Your task to perform on an android device: Open settings on Google Maps Image 0: 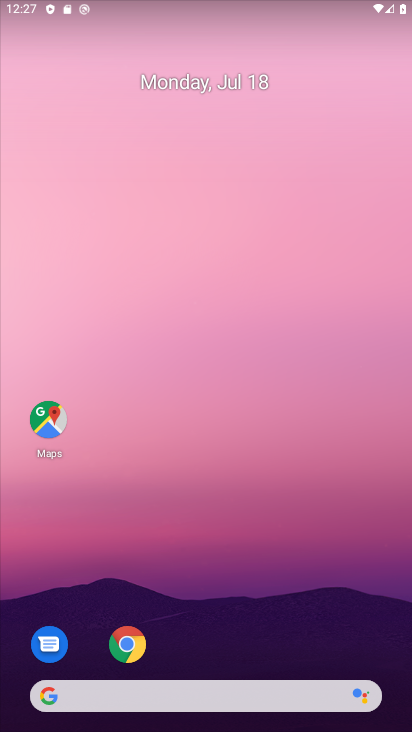
Step 0: press home button
Your task to perform on an android device: Open settings on Google Maps Image 1: 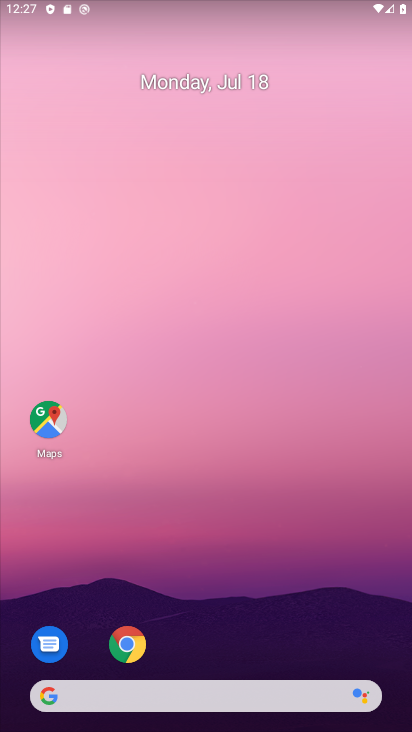
Step 1: click (237, 29)
Your task to perform on an android device: Open settings on Google Maps Image 2: 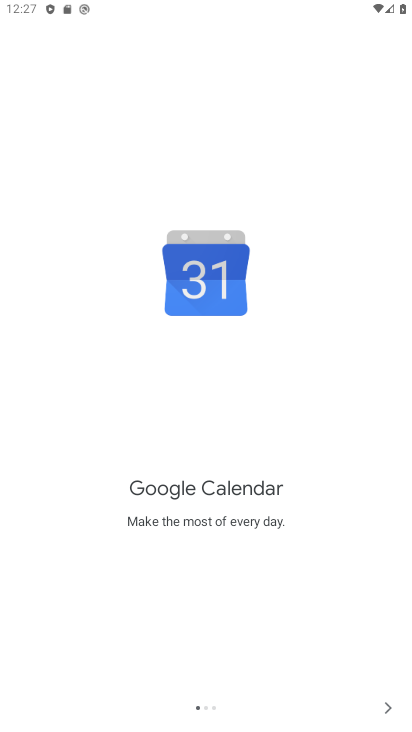
Step 2: press home button
Your task to perform on an android device: Open settings on Google Maps Image 3: 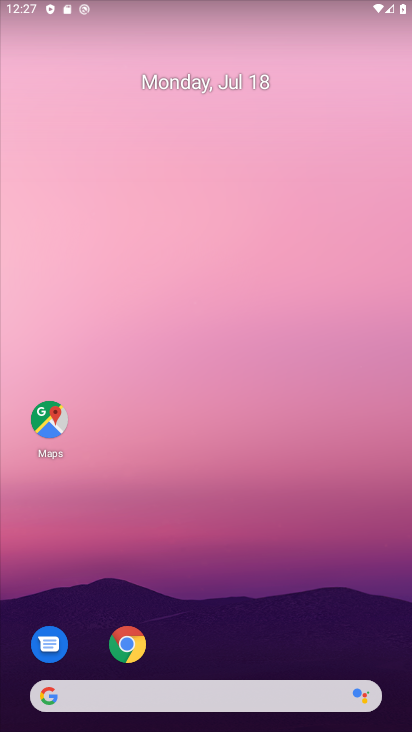
Step 3: drag from (204, 622) to (152, 55)
Your task to perform on an android device: Open settings on Google Maps Image 4: 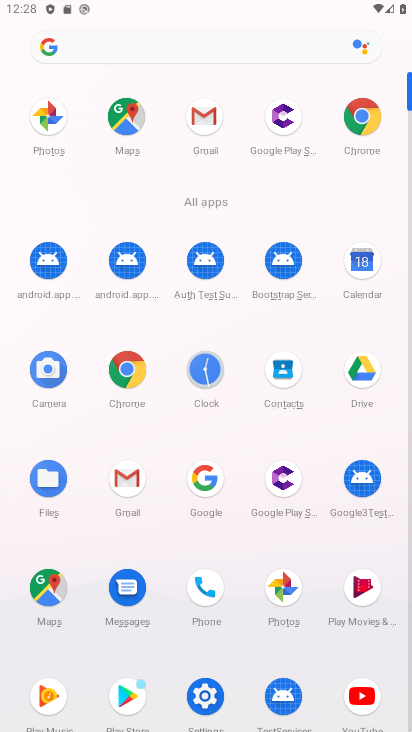
Step 4: click (124, 109)
Your task to perform on an android device: Open settings on Google Maps Image 5: 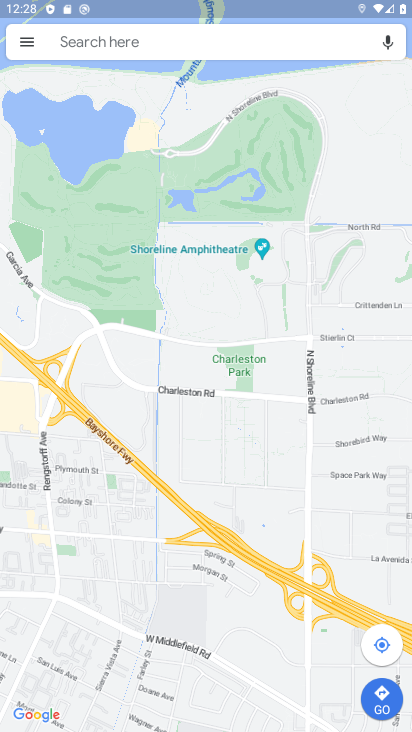
Step 5: click (24, 42)
Your task to perform on an android device: Open settings on Google Maps Image 6: 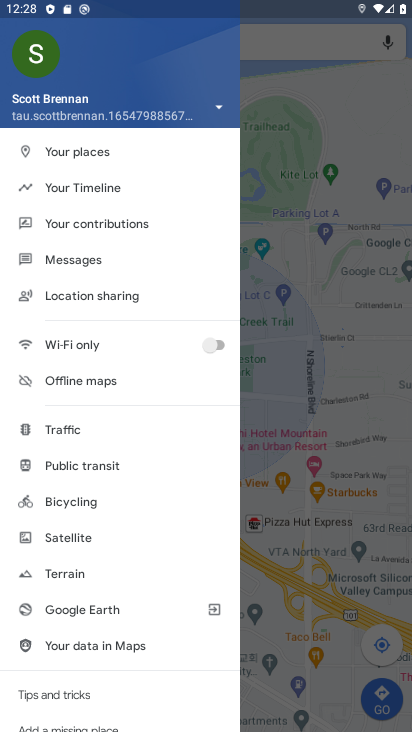
Step 6: click (69, 190)
Your task to perform on an android device: Open settings on Google Maps Image 7: 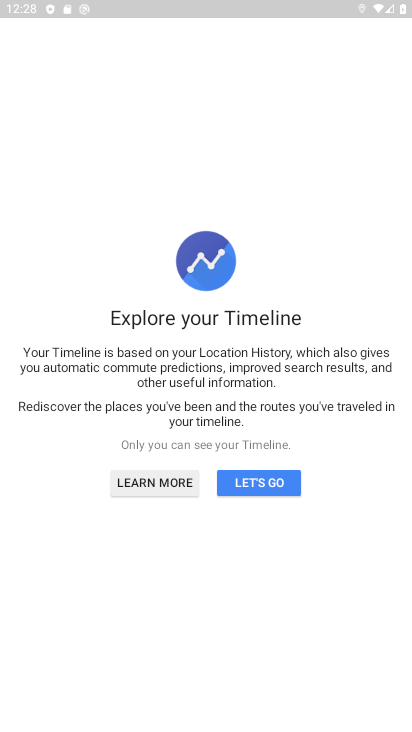
Step 7: press back button
Your task to perform on an android device: Open settings on Google Maps Image 8: 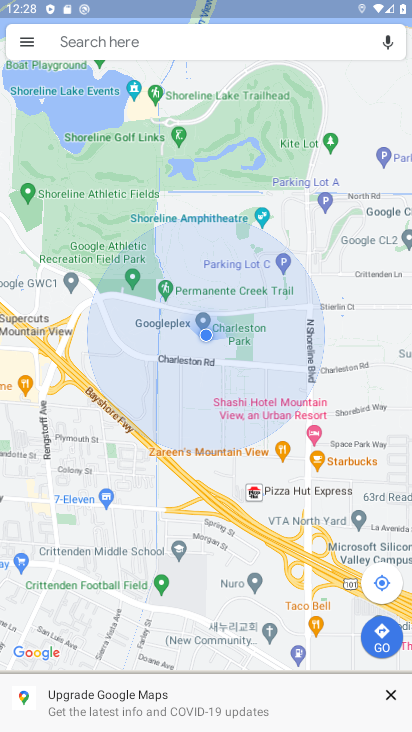
Step 8: click (29, 33)
Your task to perform on an android device: Open settings on Google Maps Image 9: 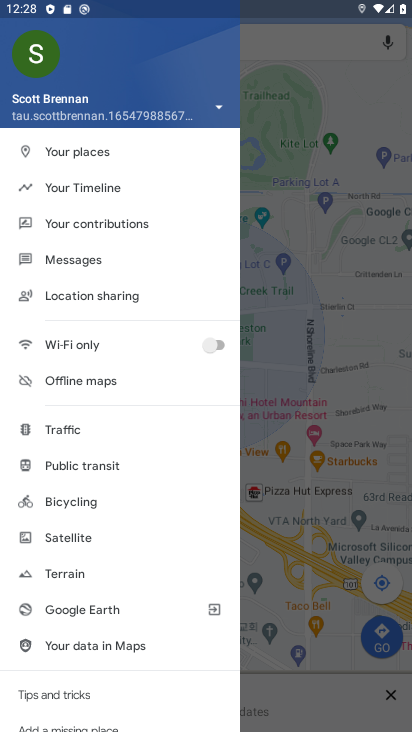
Step 9: drag from (123, 463) to (123, 34)
Your task to perform on an android device: Open settings on Google Maps Image 10: 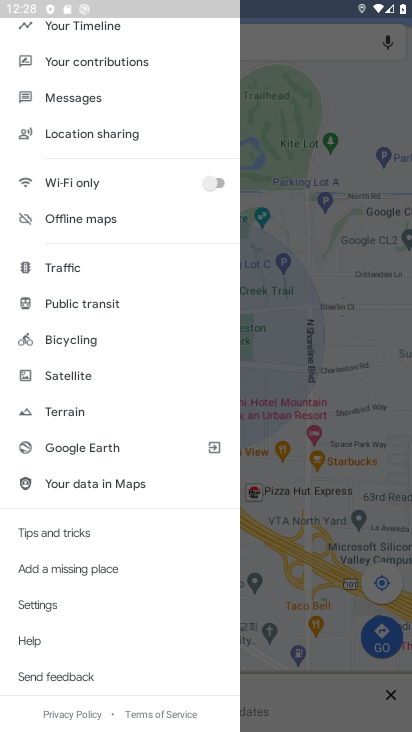
Step 10: click (51, 607)
Your task to perform on an android device: Open settings on Google Maps Image 11: 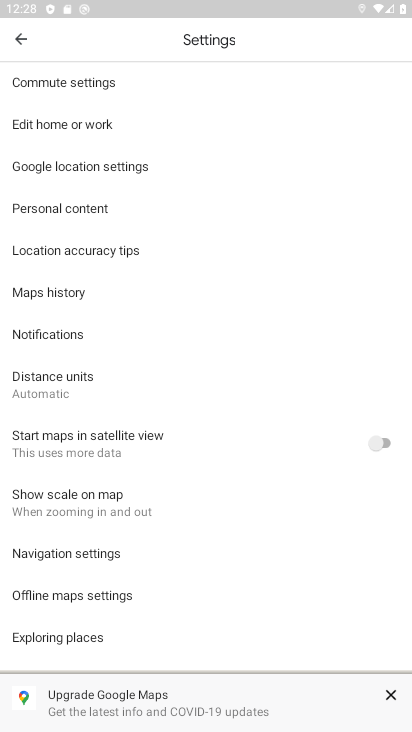
Step 11: task complete